Your task to perform on an android device: turn off improve location accuracy Image 0: 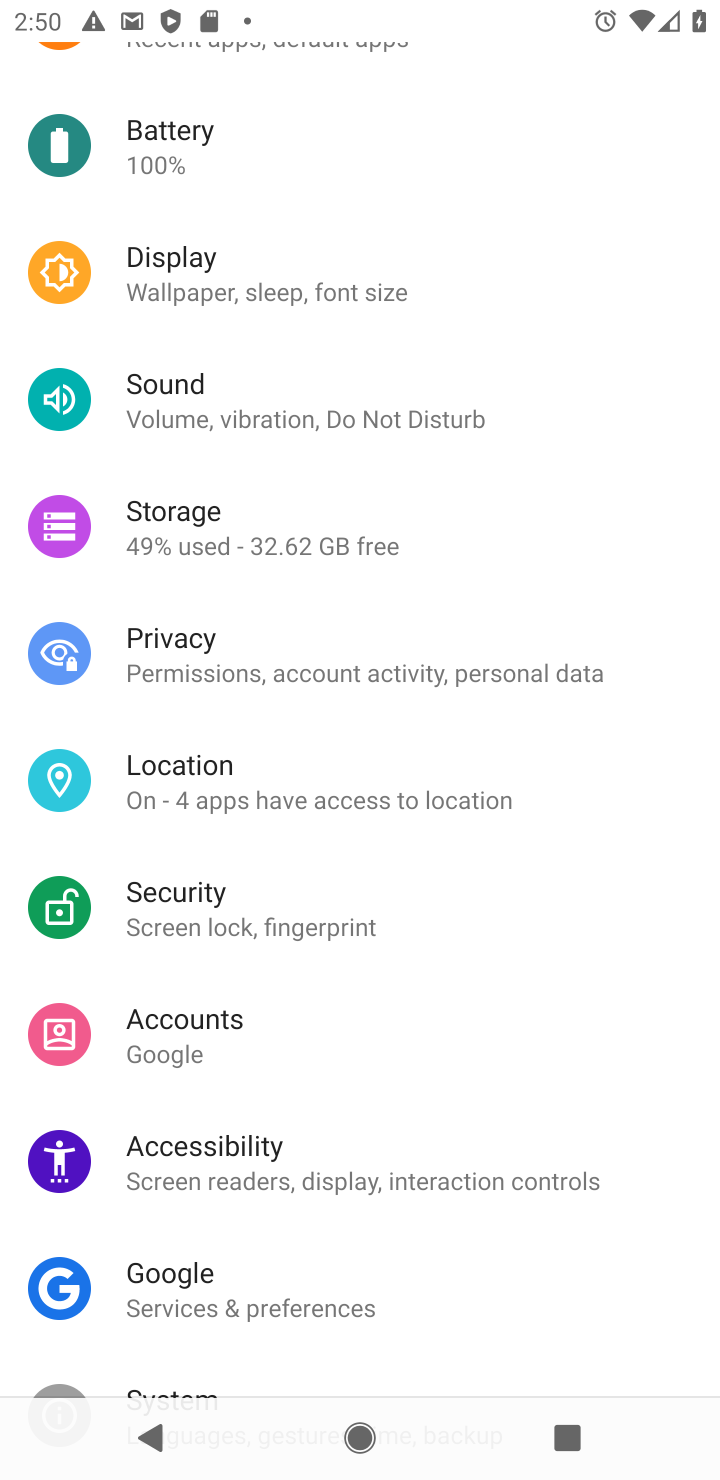
Step 0: click (204, 786)
Your task to perform on an android device: turn off improve location accuracy Image 1: 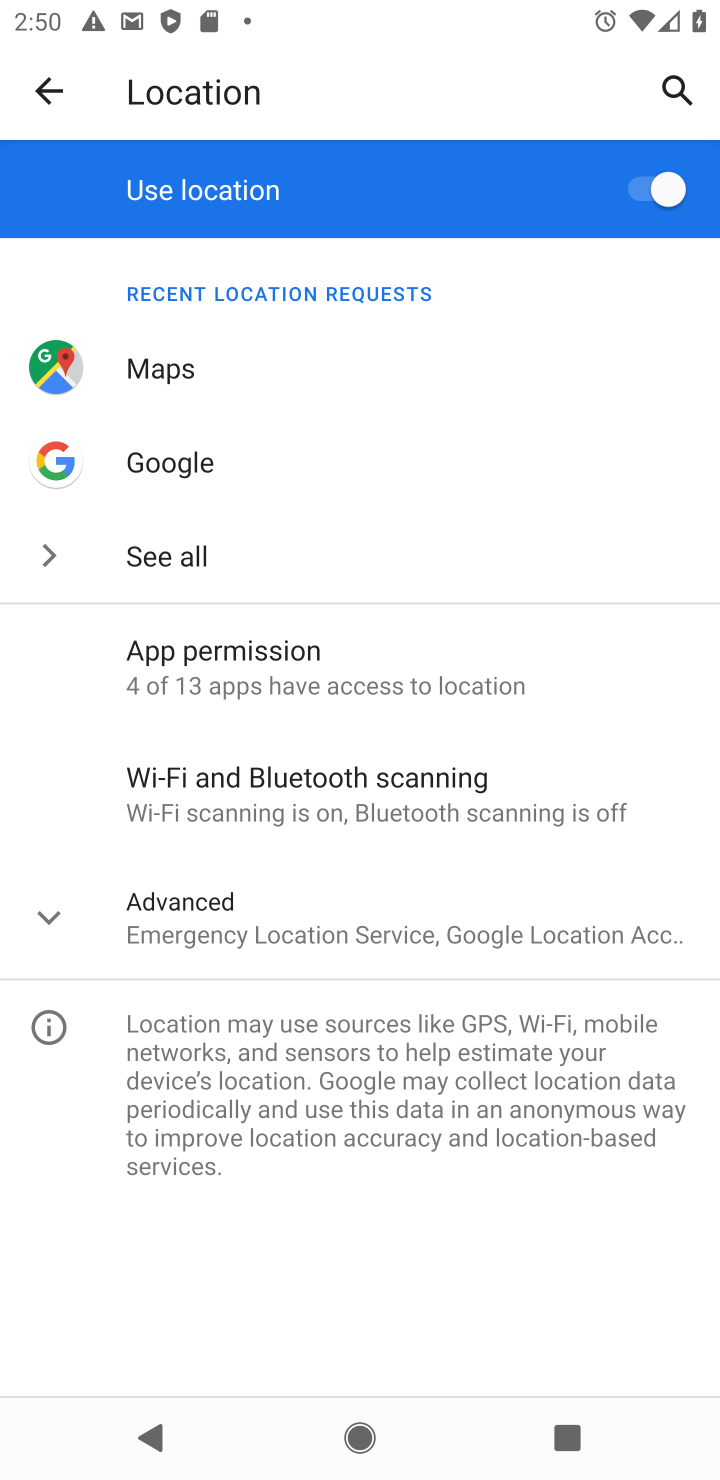
Step 1: click (204, 919)
Your task to perform on an android device: turn off improve location accuracy Image 2: 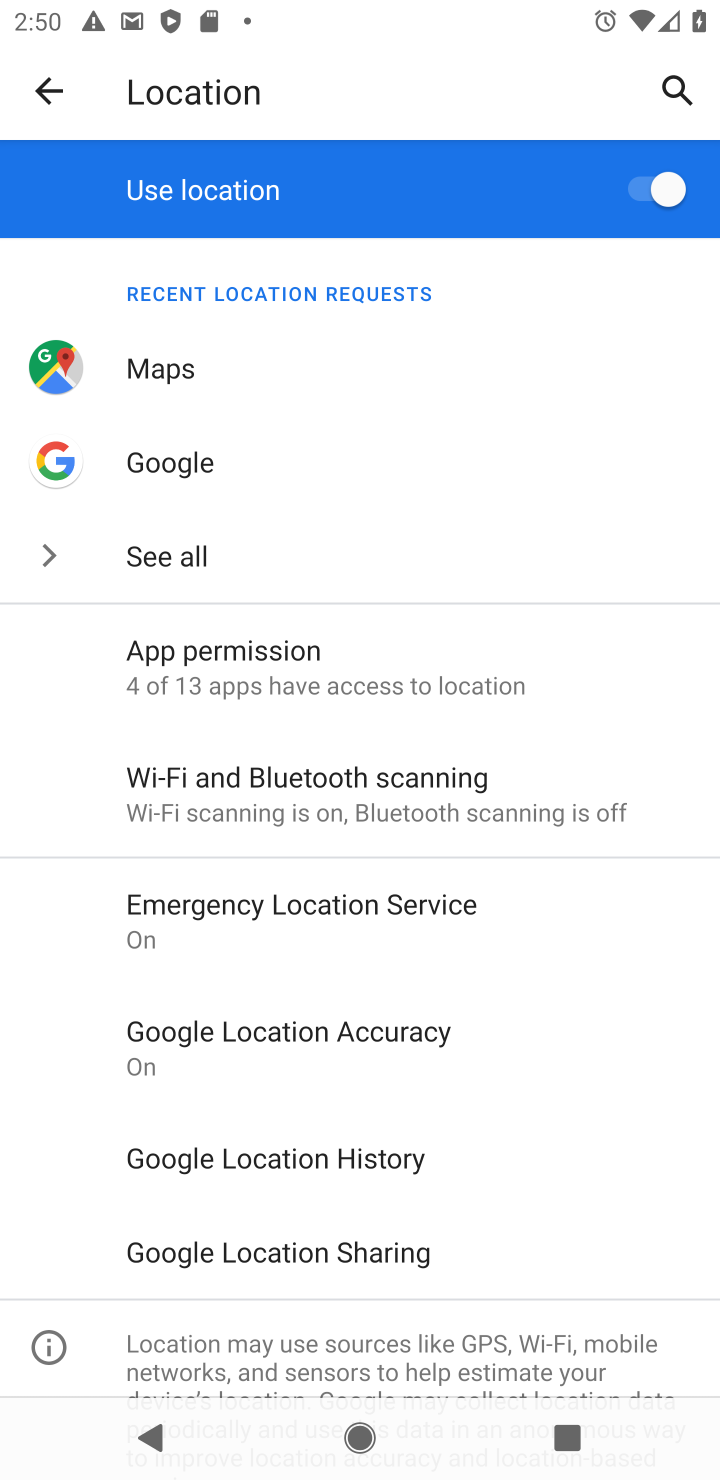
Step 2: click (367, 1010)
Your task to perform on an android device: turn off improve location accuracy Image 3: 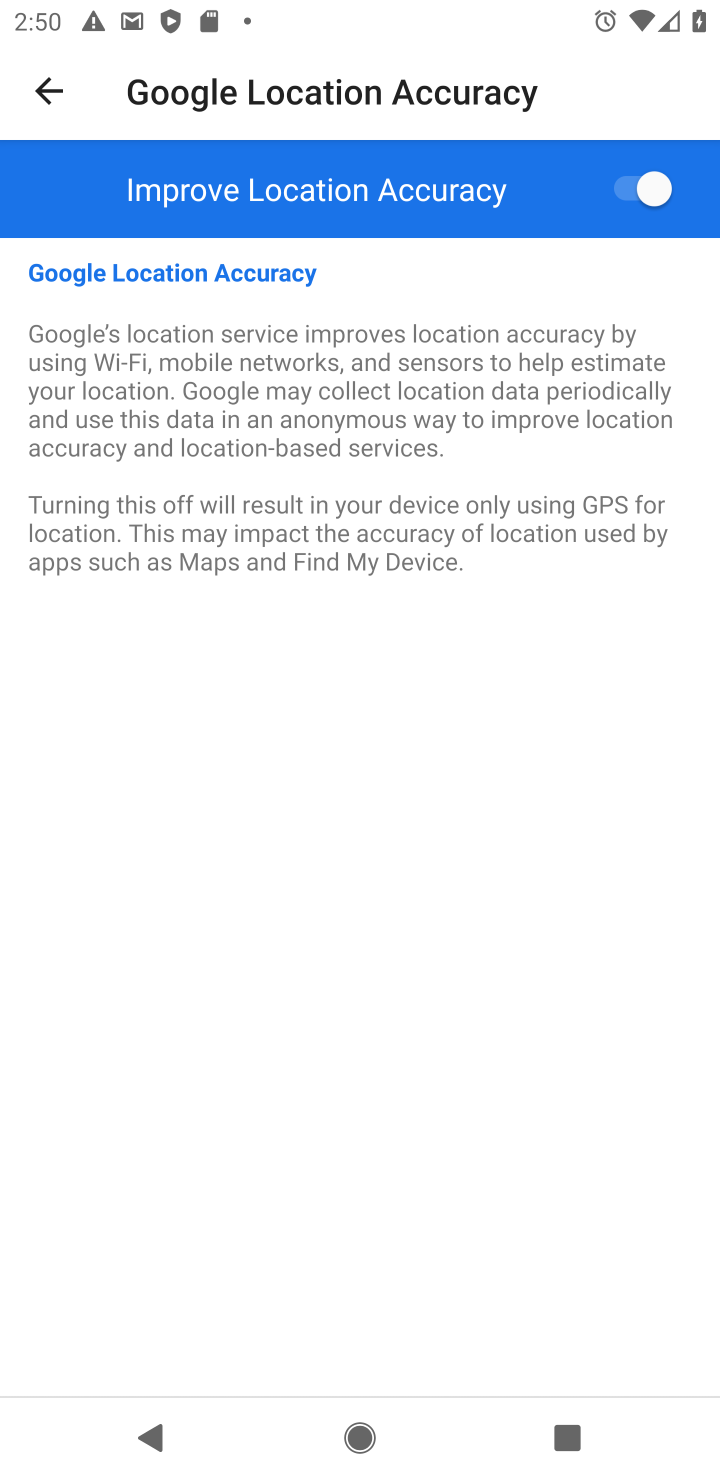
Step 3: click (625, 185)
Your task to perform on an android device: turn off improve location accuracy Image 4: 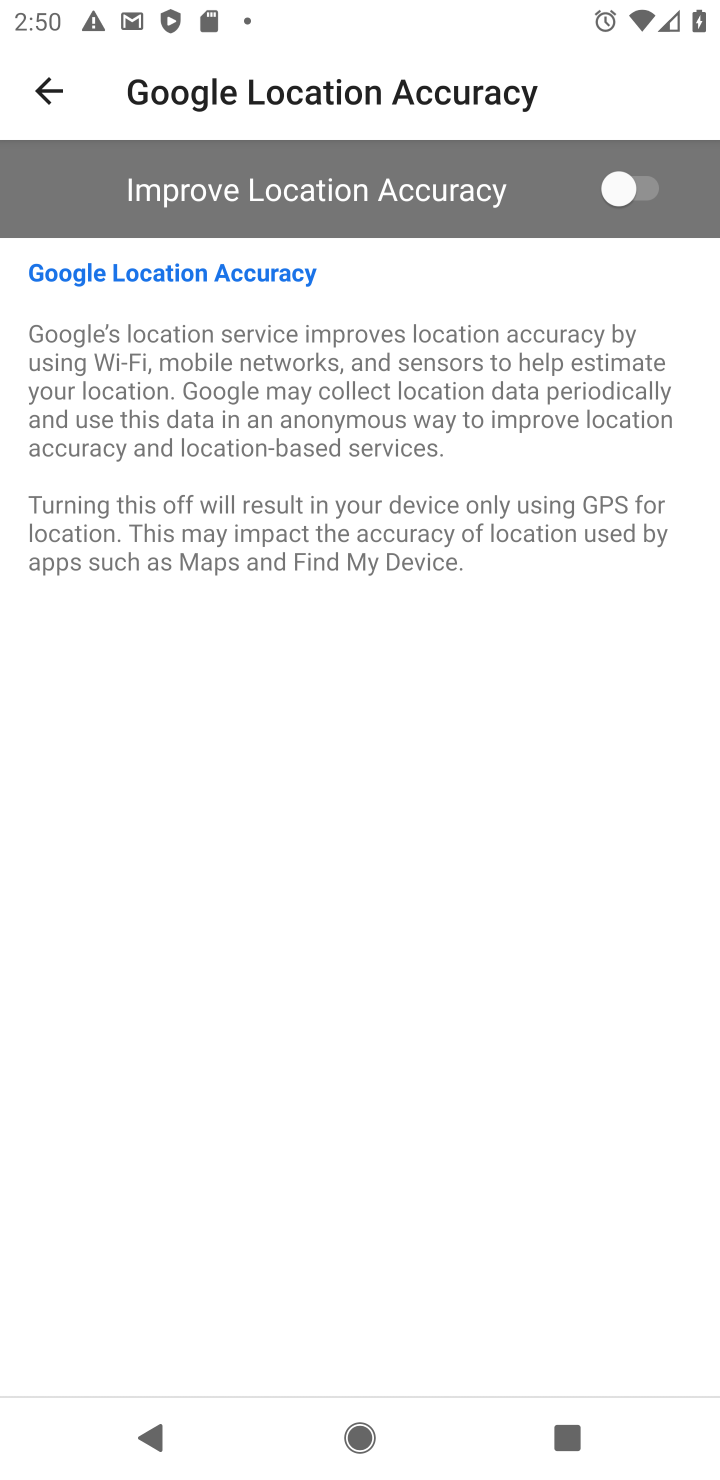
Step 4: task complete